Your task to perform on an android device: Open Google Maps and go to "Timeline" Image 0: 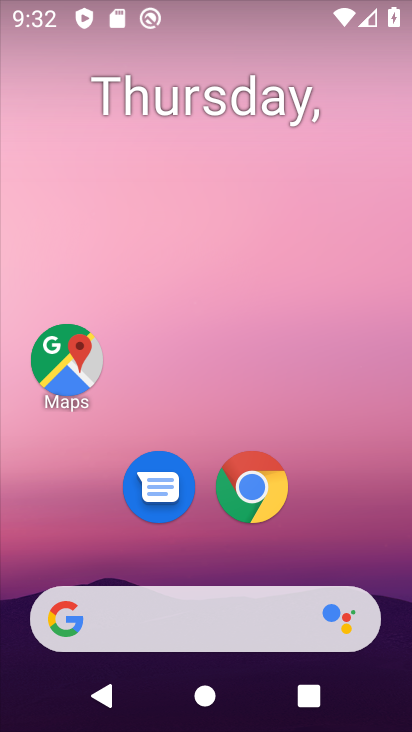
Step 0: click (79, 366)
Your task to perform on an android device: Open Google Maps and go to "Timeline" Image 1: 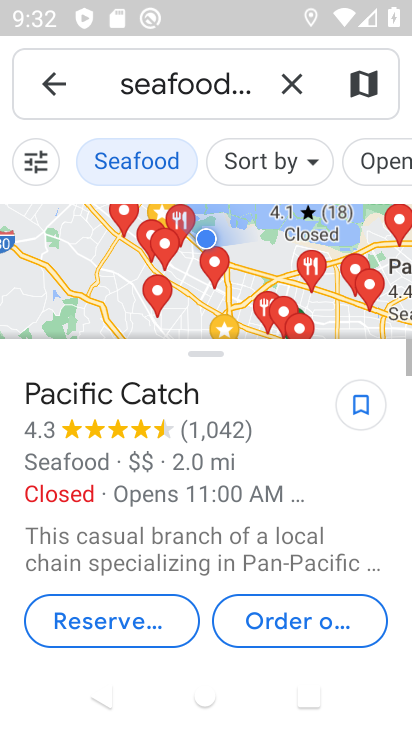
Step 1: click (54, 89)
Your task to perform on an android device: Open Google Maps and go to "Timeline" Image 2: 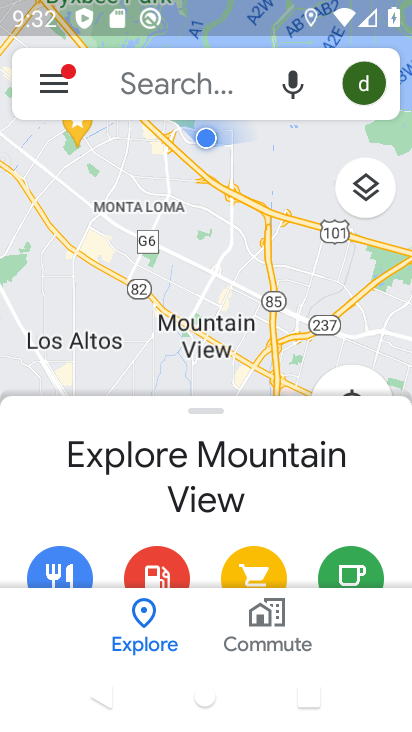
Step 2: click (54, 89)
Your task to perform on an android device: Open Google Maps and go to "Timeline" Image 3: 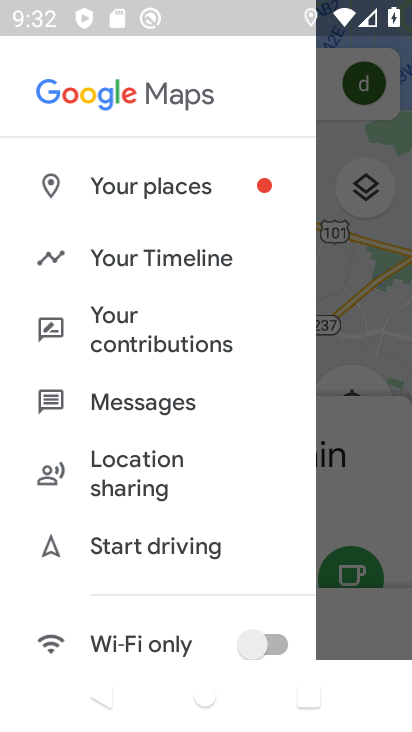
Step 3: click (118, 257)
Your task to perform on an android device: Open Google Maps and go to "Timeline" Image 4: 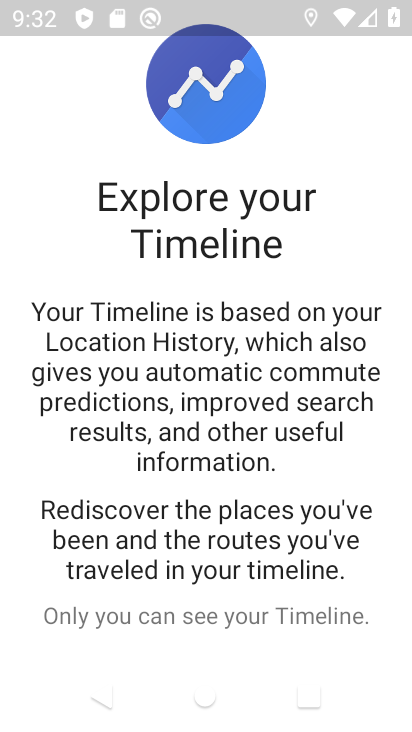
Step 4: task complete